Your task to perform on an android device: Go to display settings Image 0: 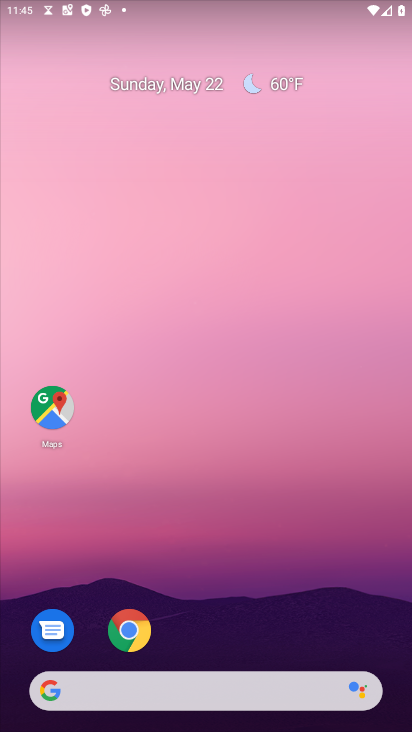
Step 0: drag from (271, 599) to (188, 129)
Your task to perform on an android device: Go to display settings Image 1: 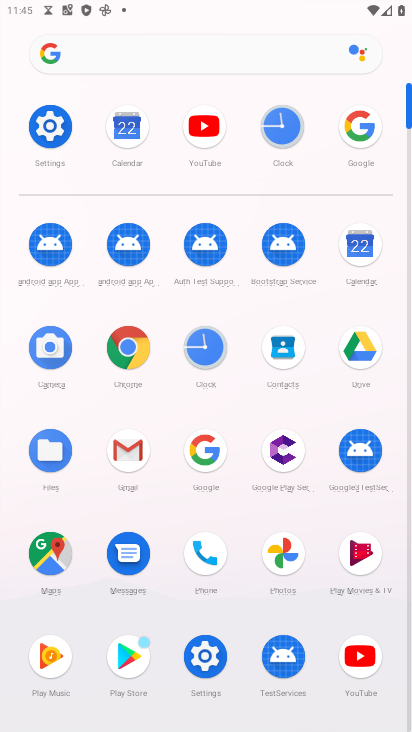
Step 1: click (50, 126)
Your task to perform on an android device: Go to display settings Image 2: 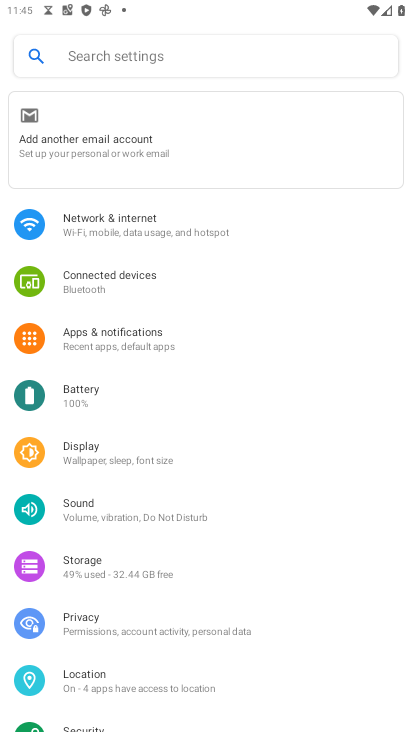
Step 2: click (132, 459)
Your task to perform on an android device: Go to display settings Image 3: 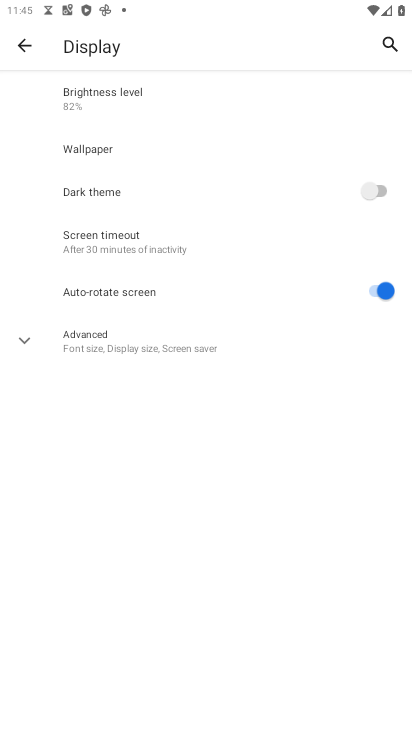
Step 3: task complete